Your task to perform on an android device: set the stopwatch Image 0: 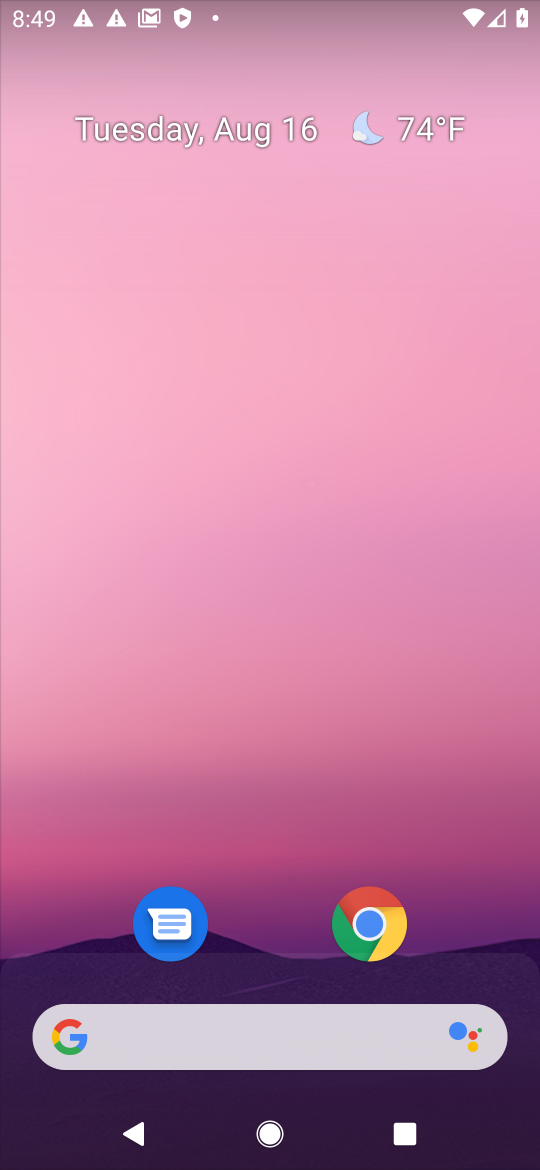
Step 0: drag from (258, 928) to (344, 172)
Your task to perform on an android device: set the stopwatch Image 1: 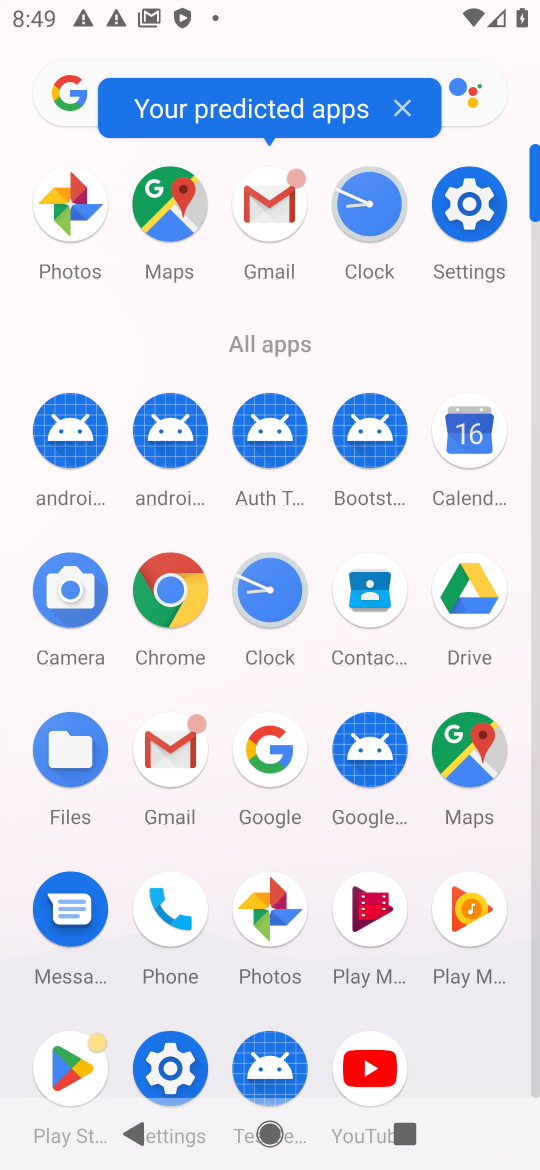
Step 1: click (377, 201)
Your task to perform on an android device: set the stopwatch Image 2: 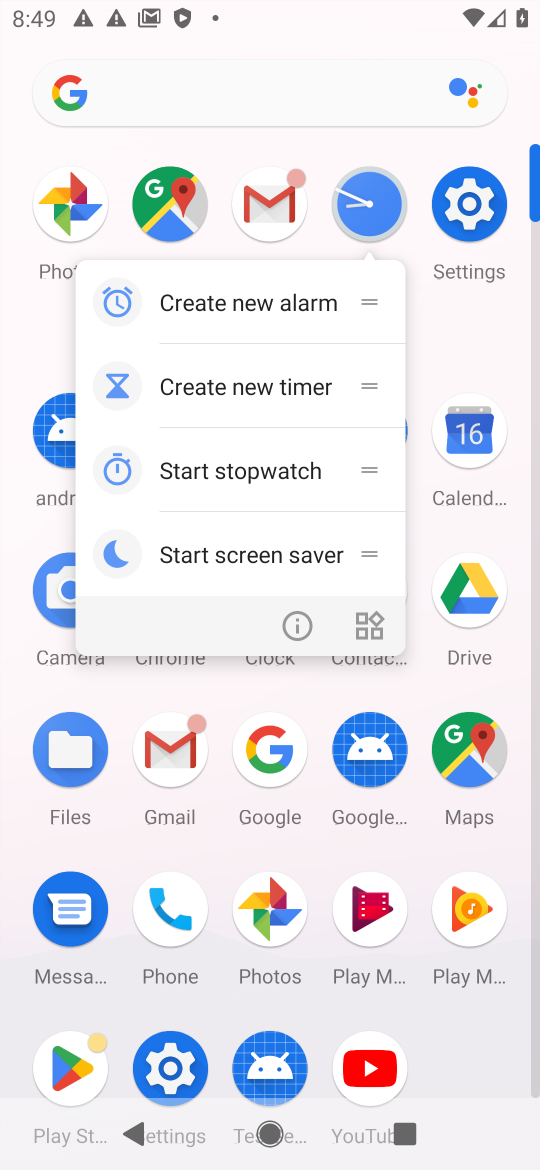
Step 2: click (345, 182)
Your task to perform on an android device: set the stopwatch Image 3: 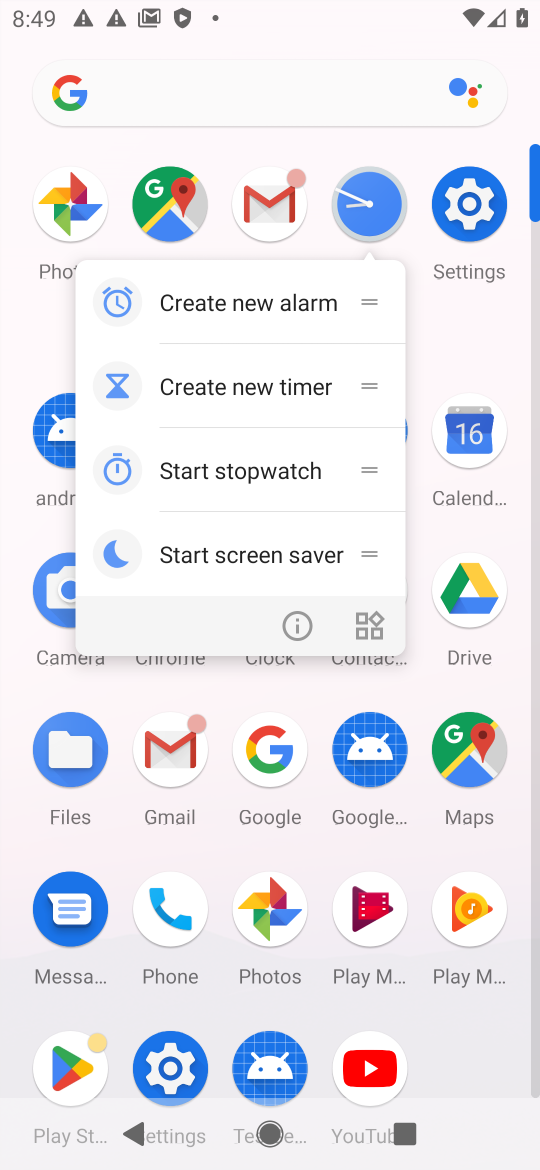
Step 3: click (357, 194)
Your task to perform on an android device: set the stopwatch Image 4: 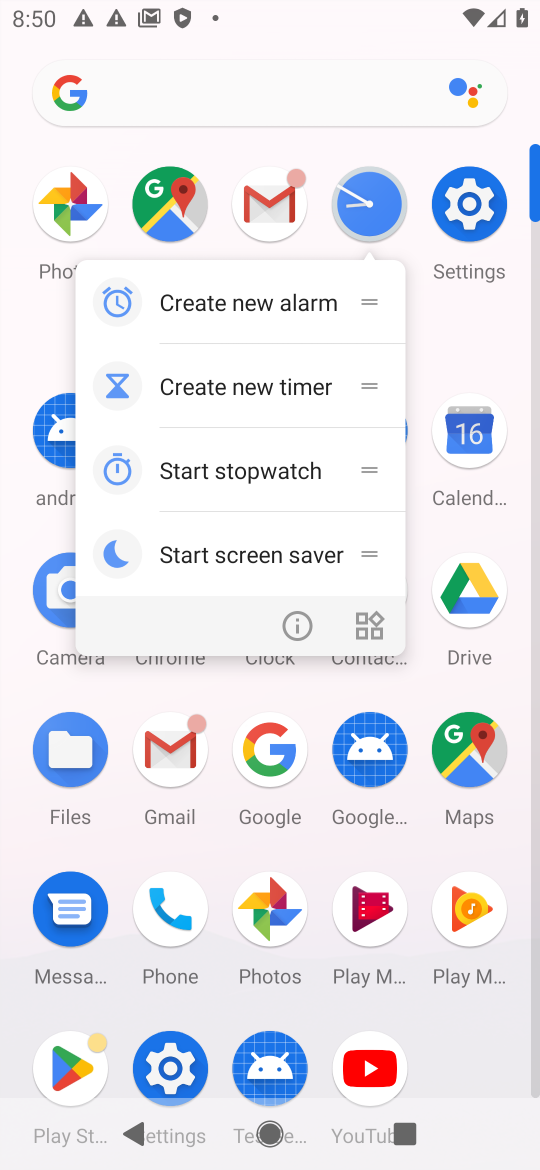
Step 4: click (372, 210)
Your task to perform on an android device: set the stopwatch Image 5: 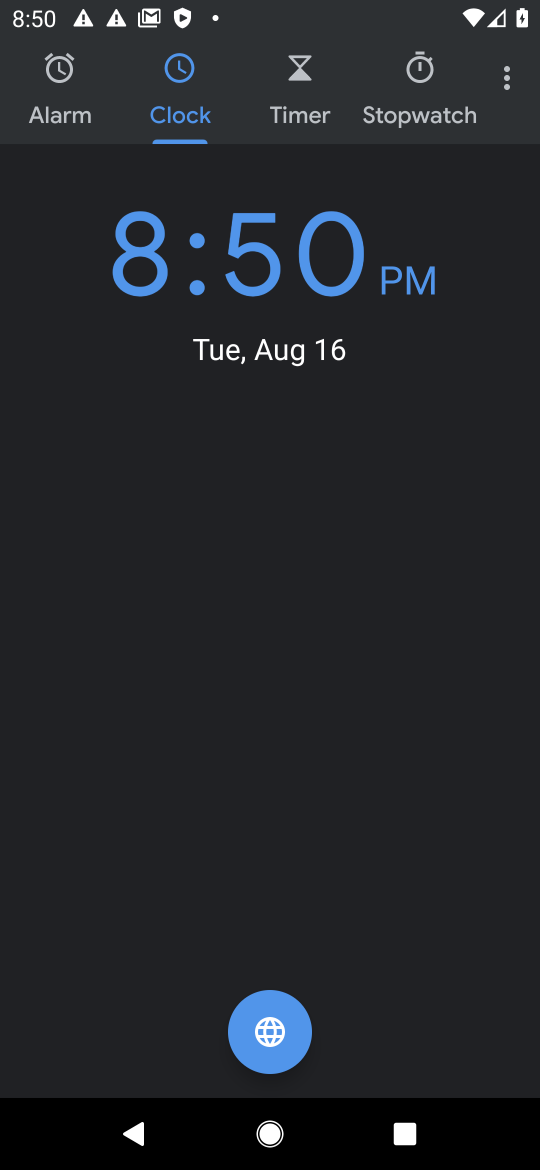
Step 5: click (401, 88)
Your task to perform on an android device: set the stopwatch Image 6: 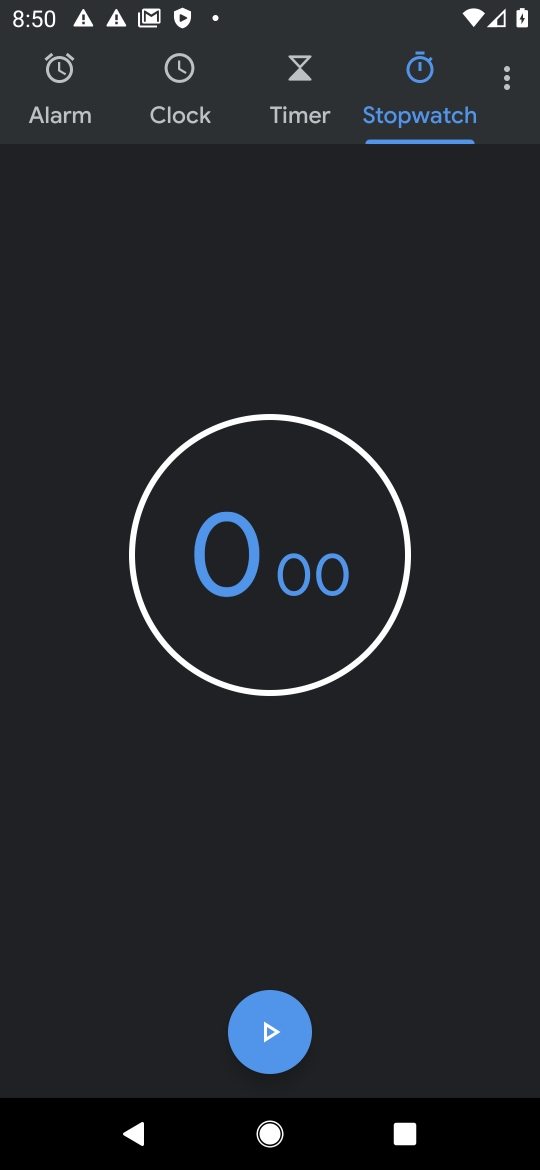
Step 6: click (268, 557)
Your task to perform on an android device: set the stopwatch Image 7: 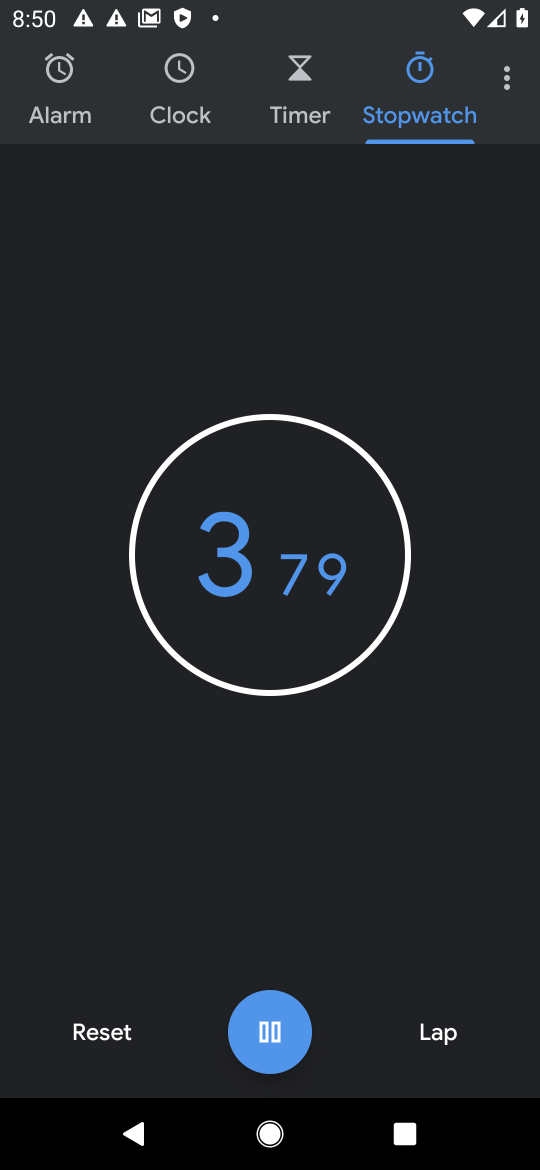
Step 7: click (268, 557)
Your task to perform on an android device: set the stopwatch Image 8: 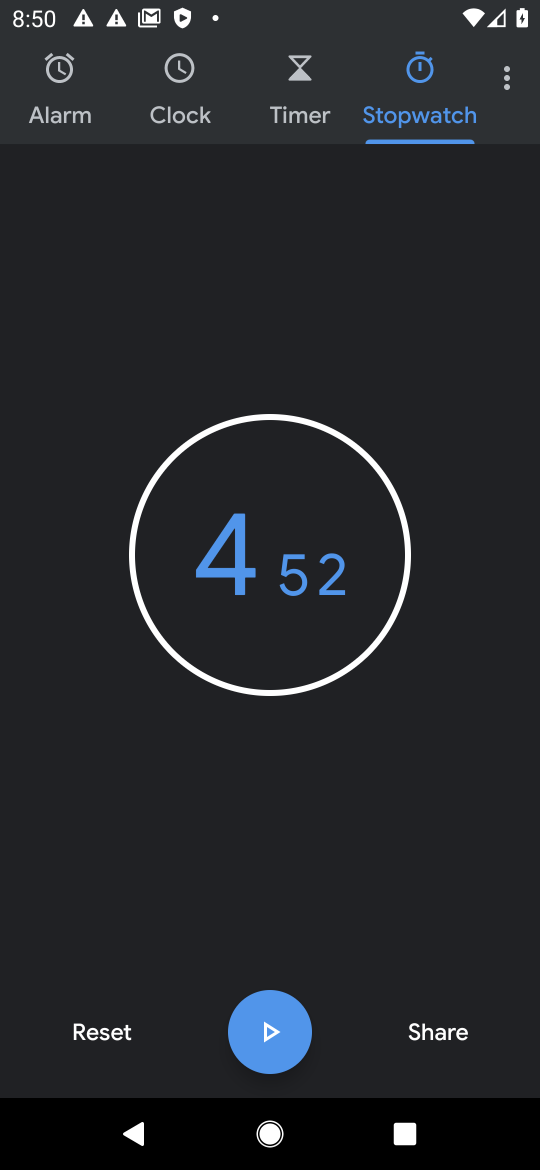
Step 8: task complete